Your task to perform on an android device: check storage Image 0: 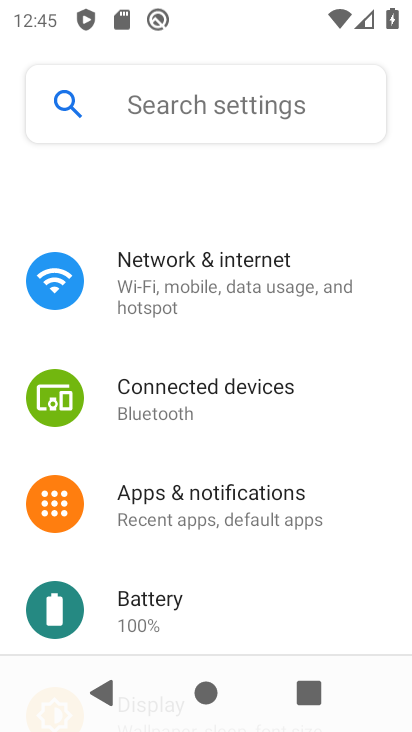
Step 0: drag from (208, 537) to (389, 101)
Your task to perform on an android device: check storage Image 1: 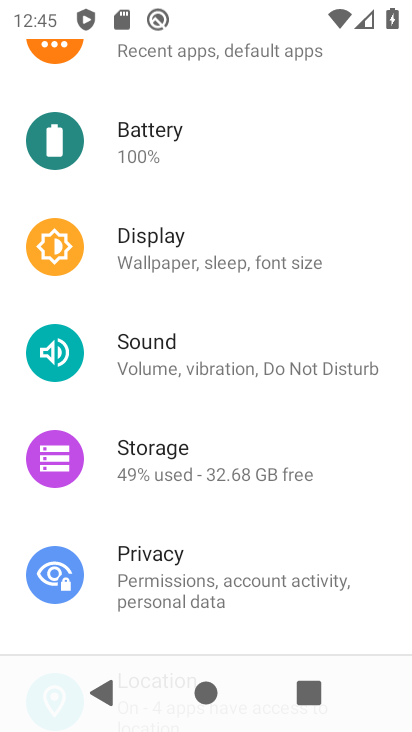
Step 1: click (183, 449)
Your task to perform on an android device: check storage Image 2: 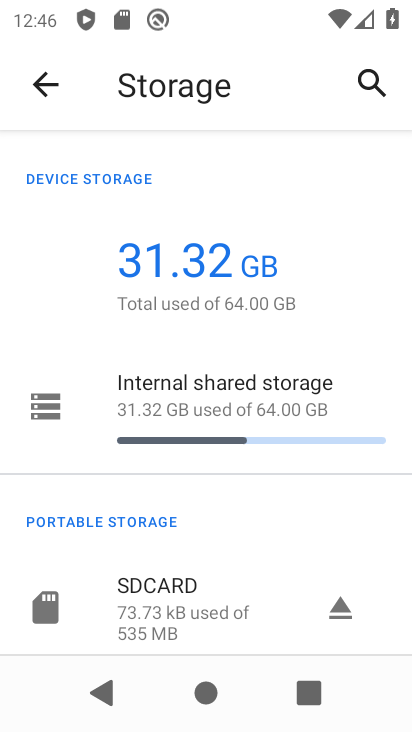
Step 2: task complete